Your task to perform on an android device: toggle location history Image 0: 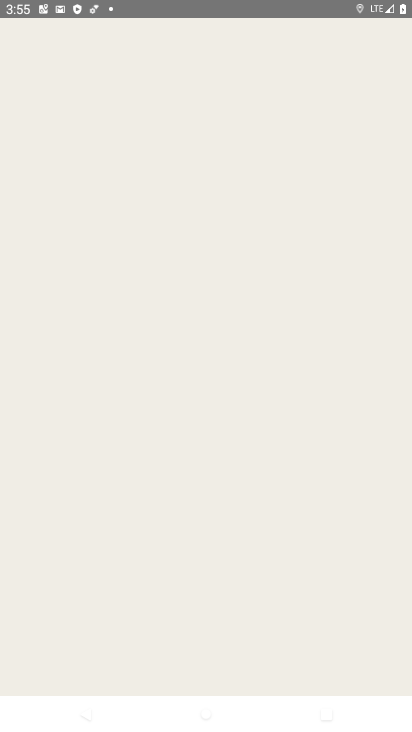
Step 0: drag from (204, 534) to (305, 79)
Your task to perform on an android device: toggle location history Image 1: 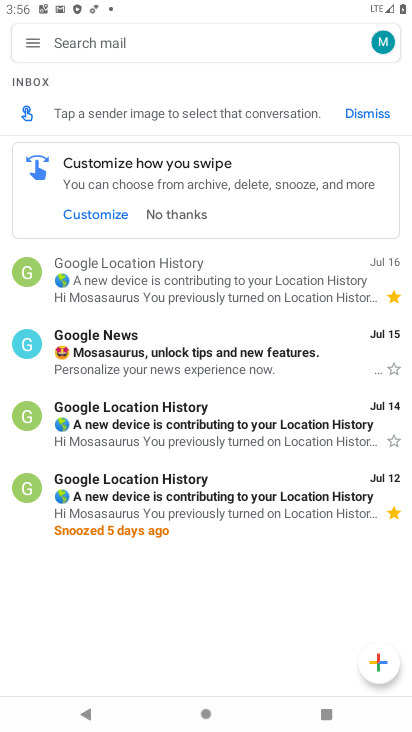
Step 1: press home button
Your task to perform on an android device: toggle location history Image 2: 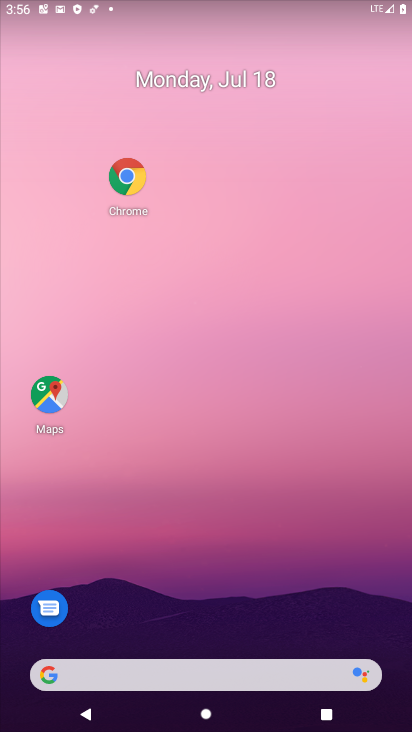
Step 2: drag from (221, 614) to (404, 104)
Your task to perform on an android device: toggle location history Image 3: 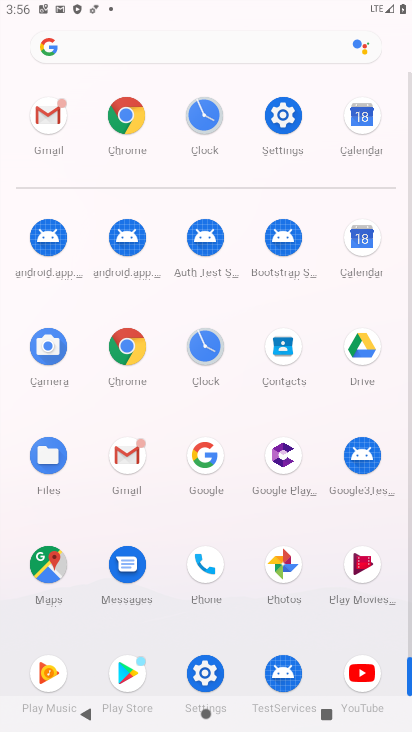
Step 3: click (289, 131)
Your task to perform on an android device: toggle location history Image 4: 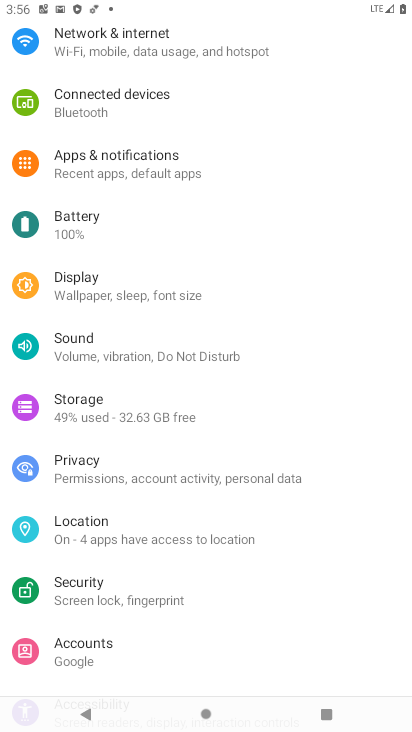
Step 4: click (145, 556)
Your task to perform on an android device: toggle location history Image 5: 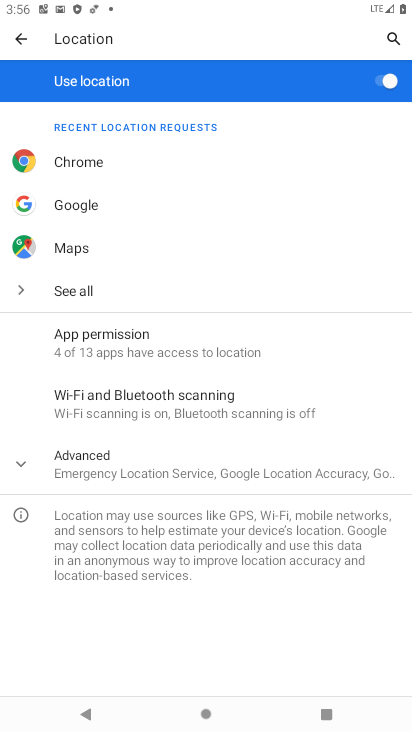
Step 5: click (150, 443)
Your task to perform on an android device: toggle location history Image 6: 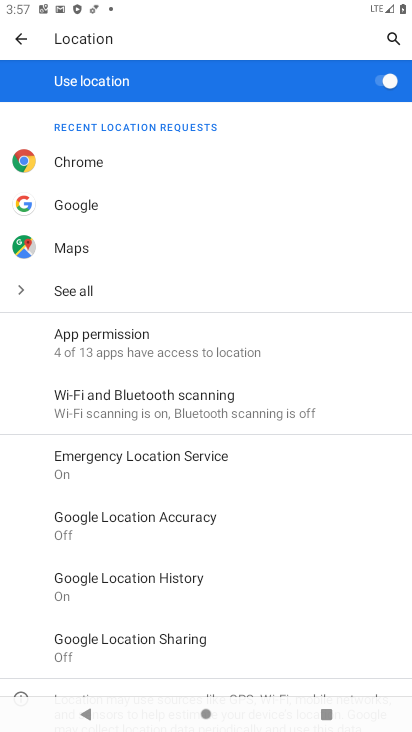
Step 6: click (169, 598)
Your task to perform on an android device: toggle location history Image 7: 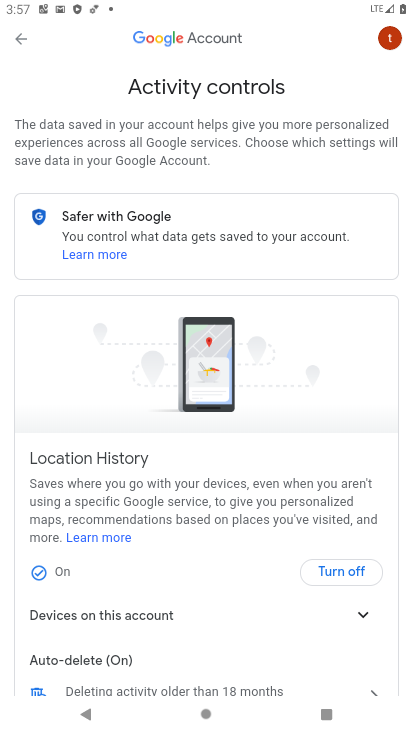
Step 7: click (331, 571)
Your task to perform on an android device: toggle location history Image 8: 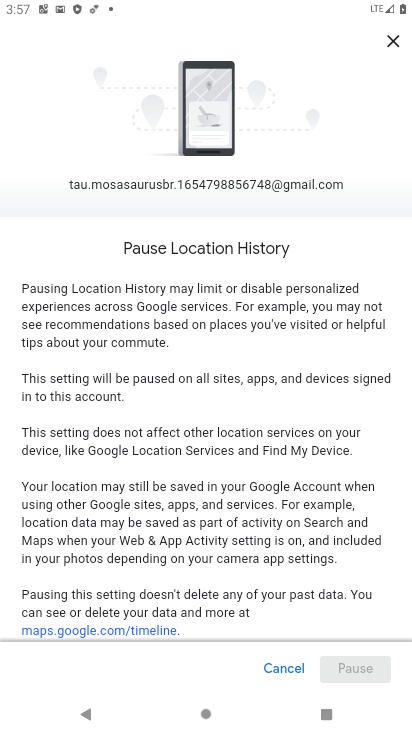
Step 8: drag from (290, 531) to (392, 53)
Your task to perform on an android device: toggle location history Image 9: 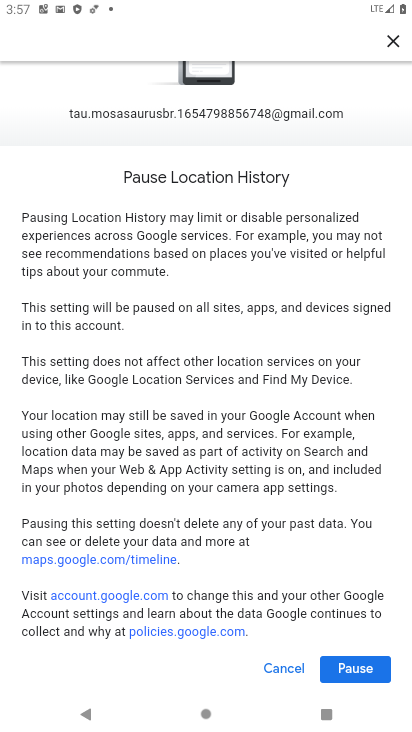
Step 9: click (339, 676)
Your task to perform on an android device: toggle location history Image 10: 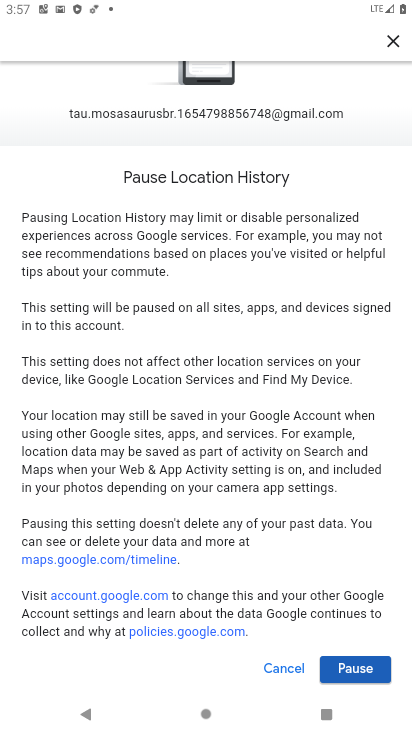
Step 10: click (372, 675)
Your task to perform on an android device: toggle location history Image 11: 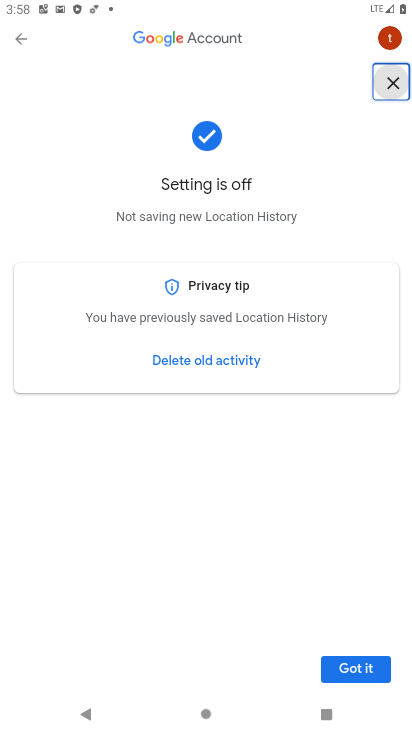
Step 11: click (368, 667)
Your task to perform on an android device: toggle location history Image 12: 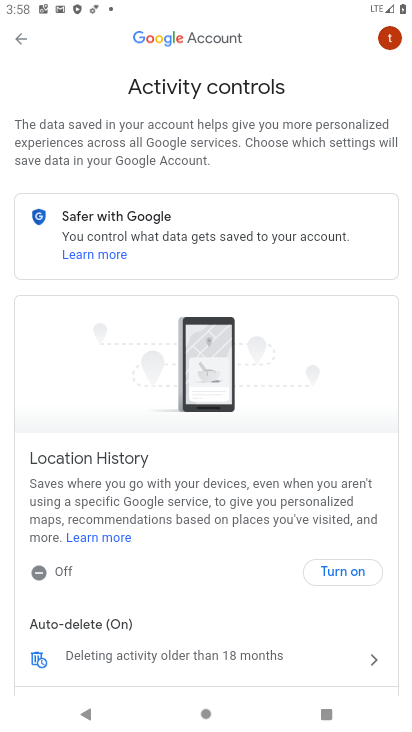
Step 12: task complete